Your task to perform on an android device: Open ESPN.com Image 0: 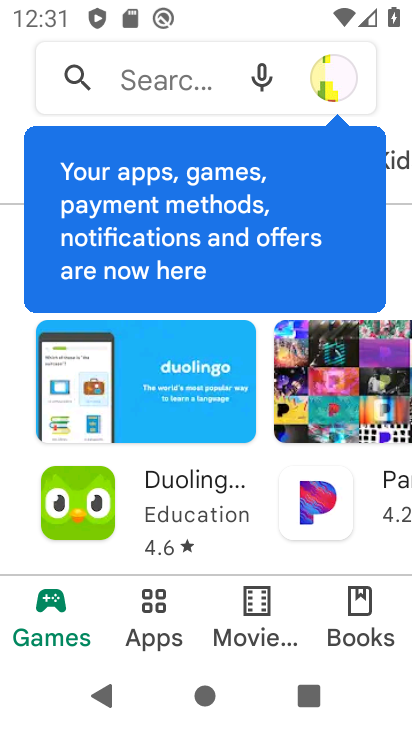
Step 0: press home button
Your task to perform on an android device: Open ESPN.com Image 1: 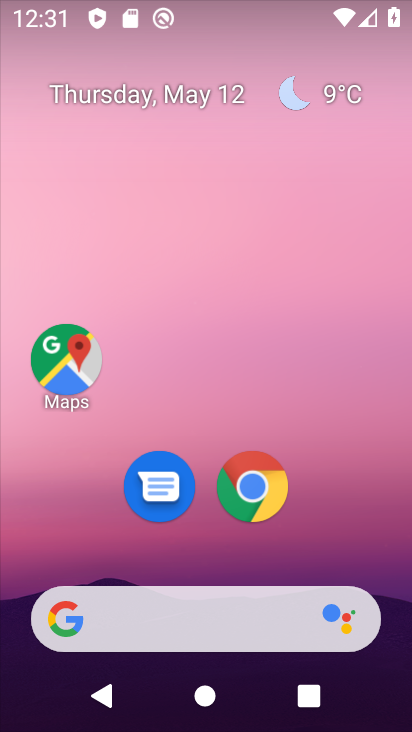
Step 1: drag from (202, 587) to (245, 203)
Your task to perform on an android device: Open ESPN.com Image 2: 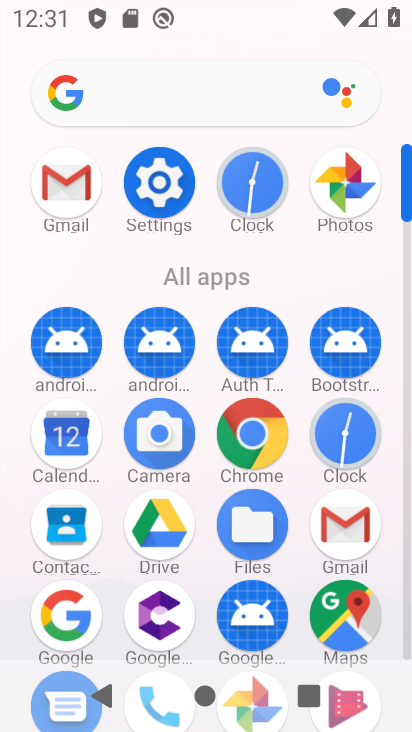
Step 2: click (241, 438)
Your task to perform on an android device: Open ESPN.com Image 3: 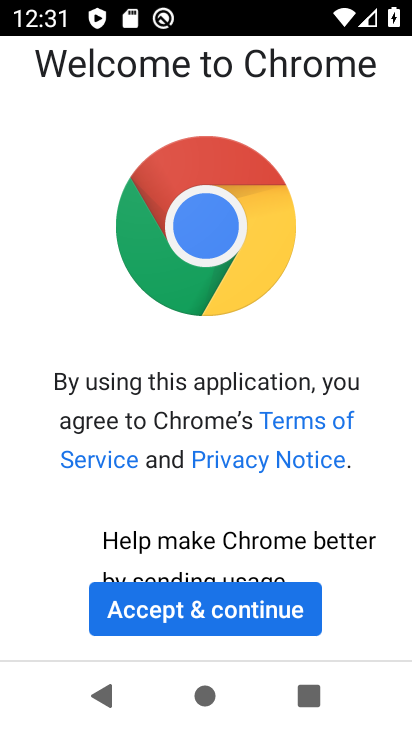
Step 3: click (224, 610)
Your task to perform on an android device: Open ESPN.com Image 4: 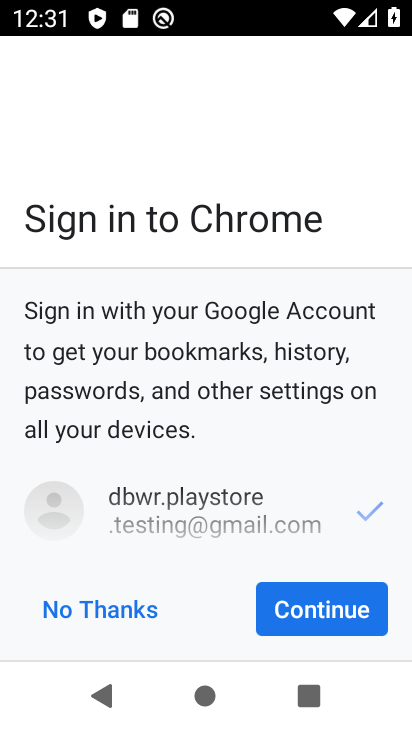
Step 4: click (333, 613)
Your task to perform on an android device: Open ESPN.com Image 5: 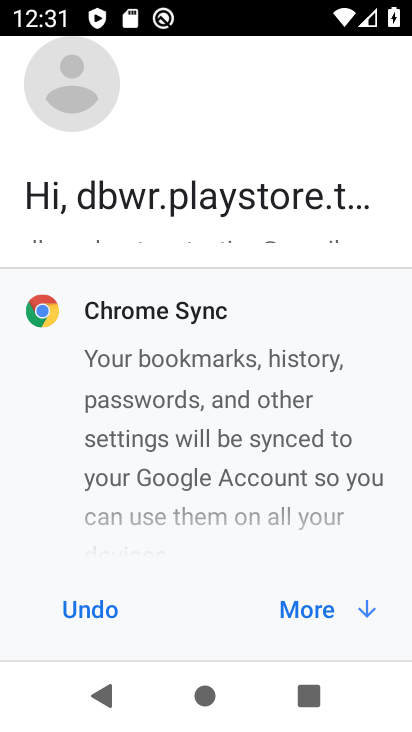
Step 5: click (333, 613)
Your task to perform on an android device: Open ESPN.com Image 6: 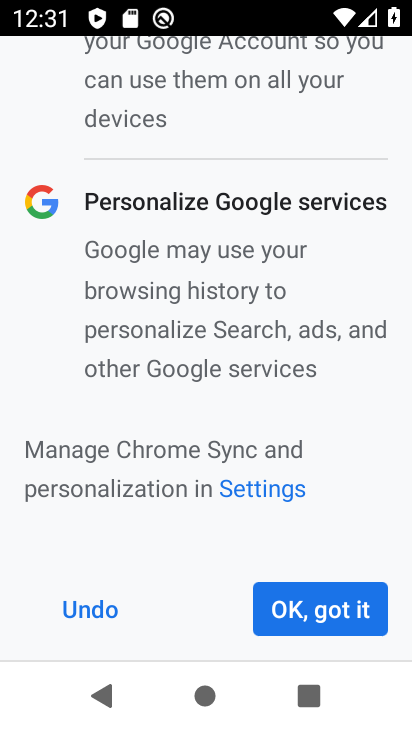
Step 6: click (333, 613)
Your task to perform on an android device: Open ESPN.com Image 7: 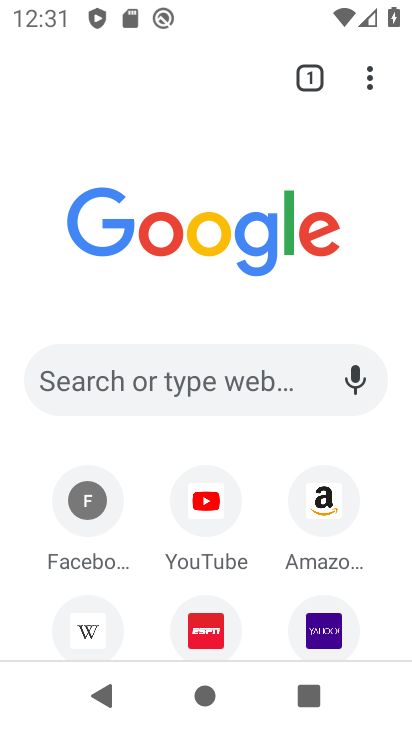
Step 7: drag from (147, 648) to (214, 268)
Your task to perform on an android device: Open ESPN.com Image 8: 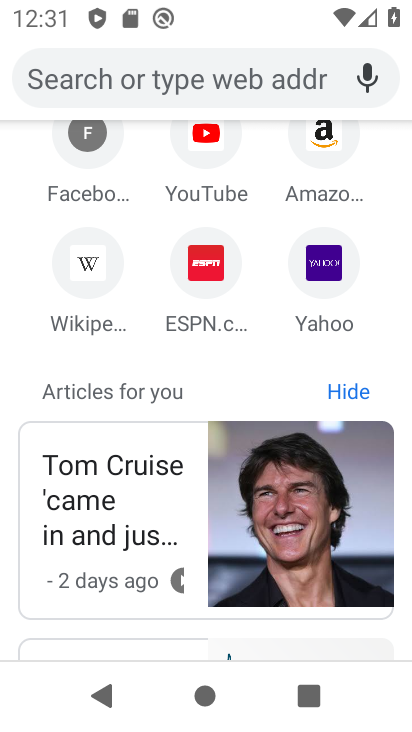
Step 8: click (200, 275)
Your task to perform on an android device: Open ESPN.com Image 9: 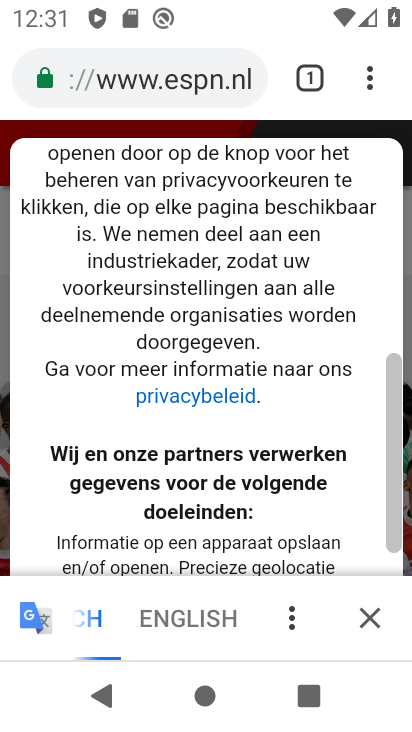
Step 9: task complete